Your task to perform on an android device: change your default location settings in chrome Image 0: 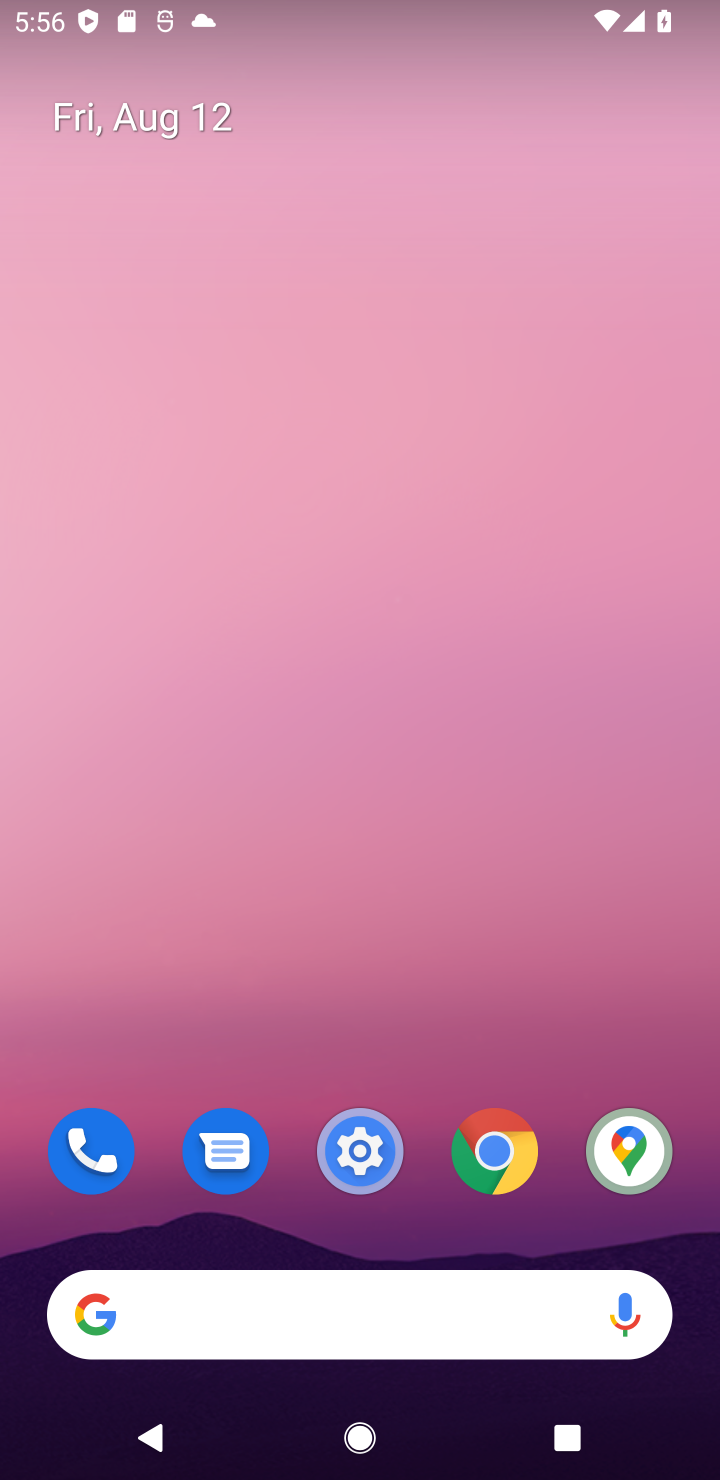
Step 0: click (499, 1147)
Your task to perform on an android device: change your default location settings in chrome Image 1: 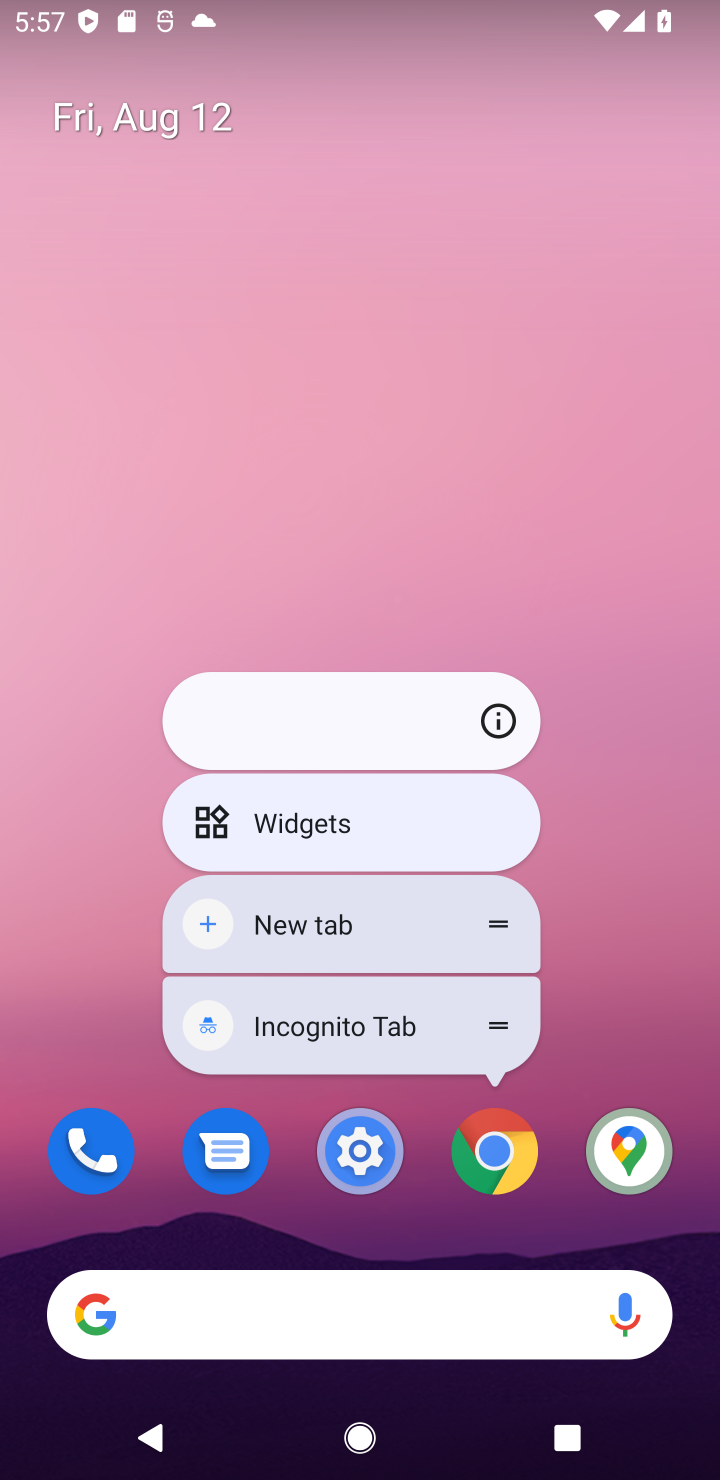
Step 1: click (499, 1147)
Your task to perform on an android device: change your default location settings in chrome Image 2: 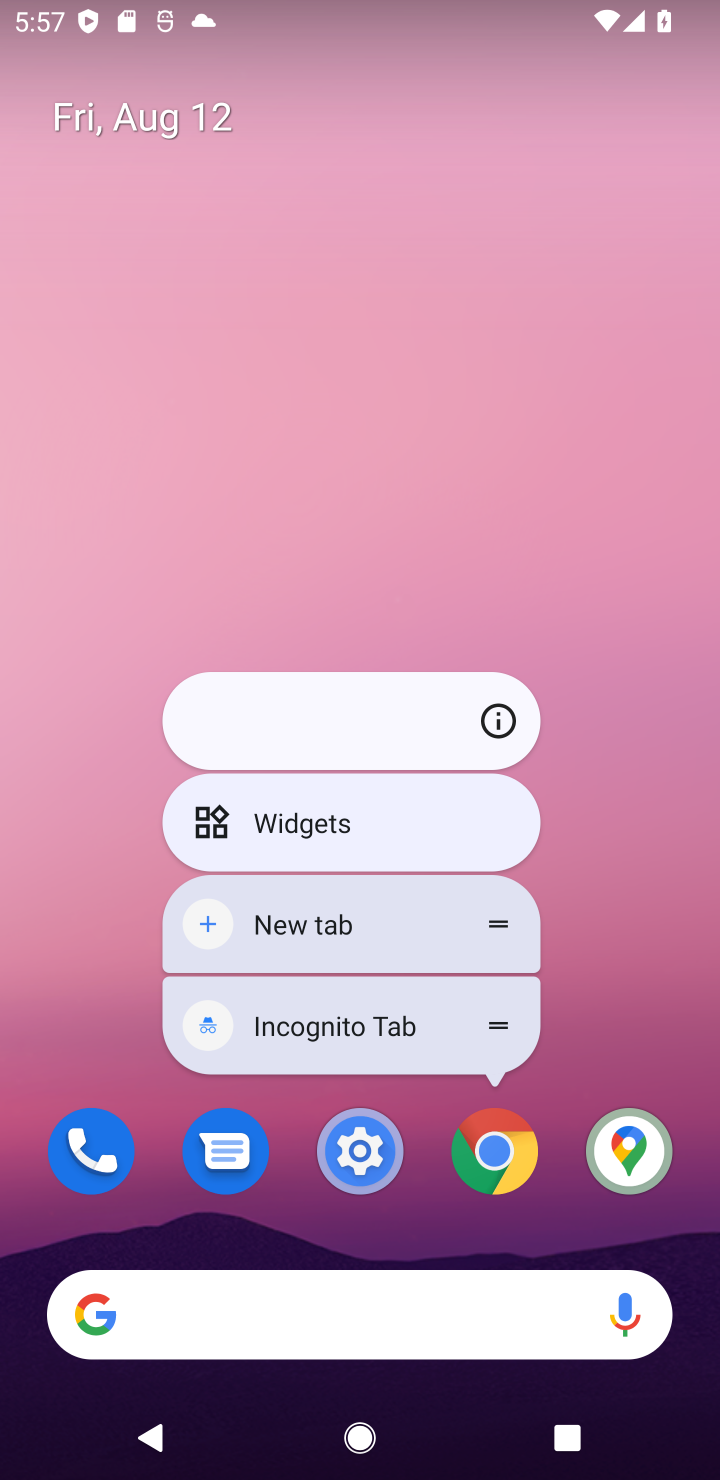
Step 2: click (495, 1169)
Your task to perform on an android device: change your default location settings in chrome Image 3: 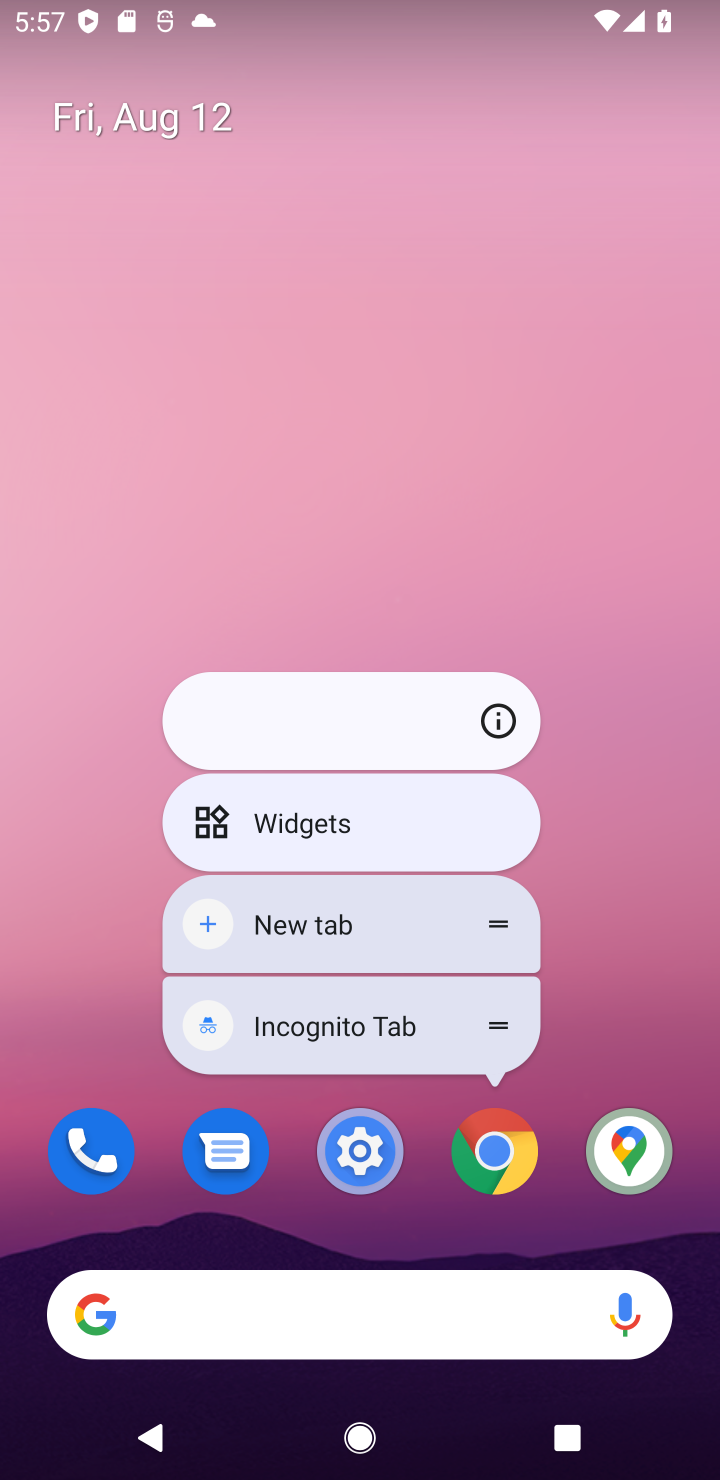
Step 3: click (495, 1169)
Your task to perform on an android device: change your default location settings in chrome Image 4: 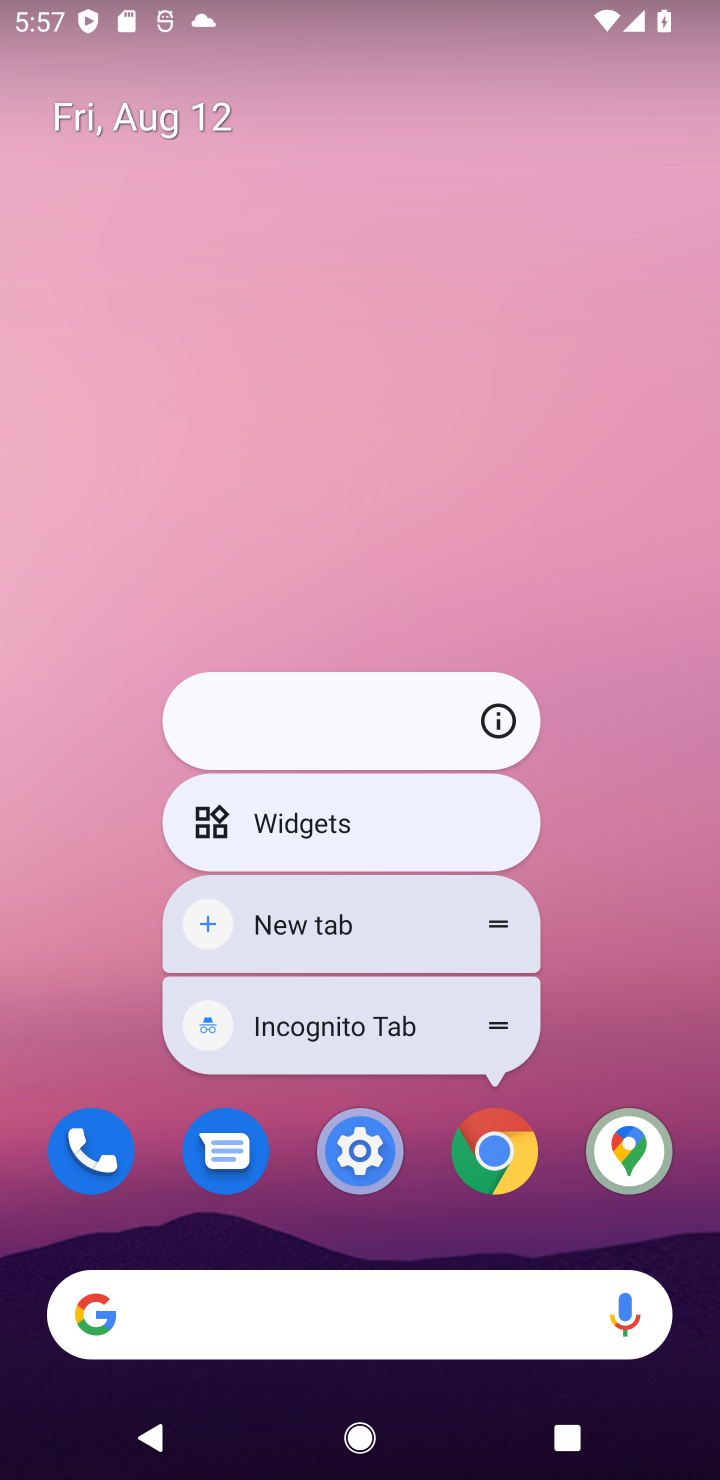
Step 4: click (672, 906)
Your task to perform on an android device: change your default location settings in chrome Image 5: 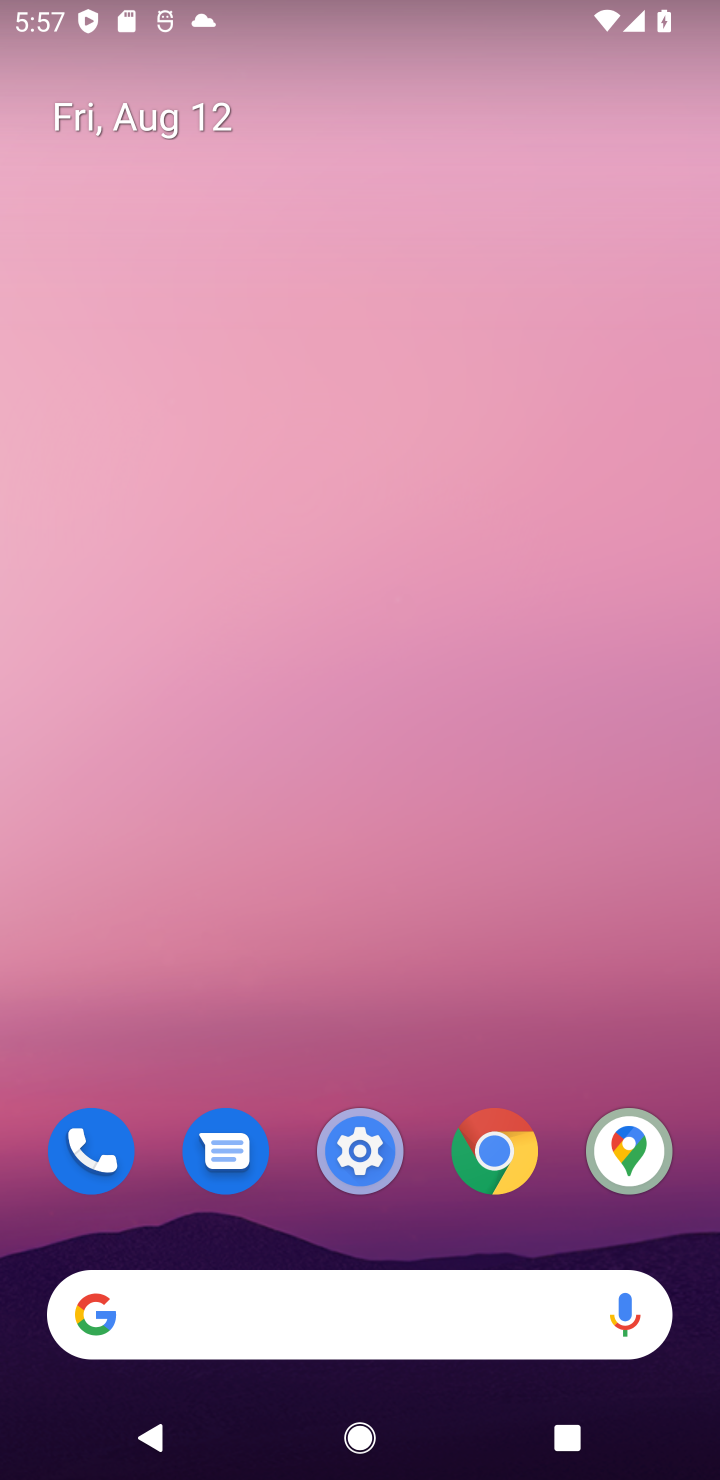
Step 5: drag from (542, 1060) to (582, 59)
Your task to perform on an android device: change your default location settings in chrome Image 6: 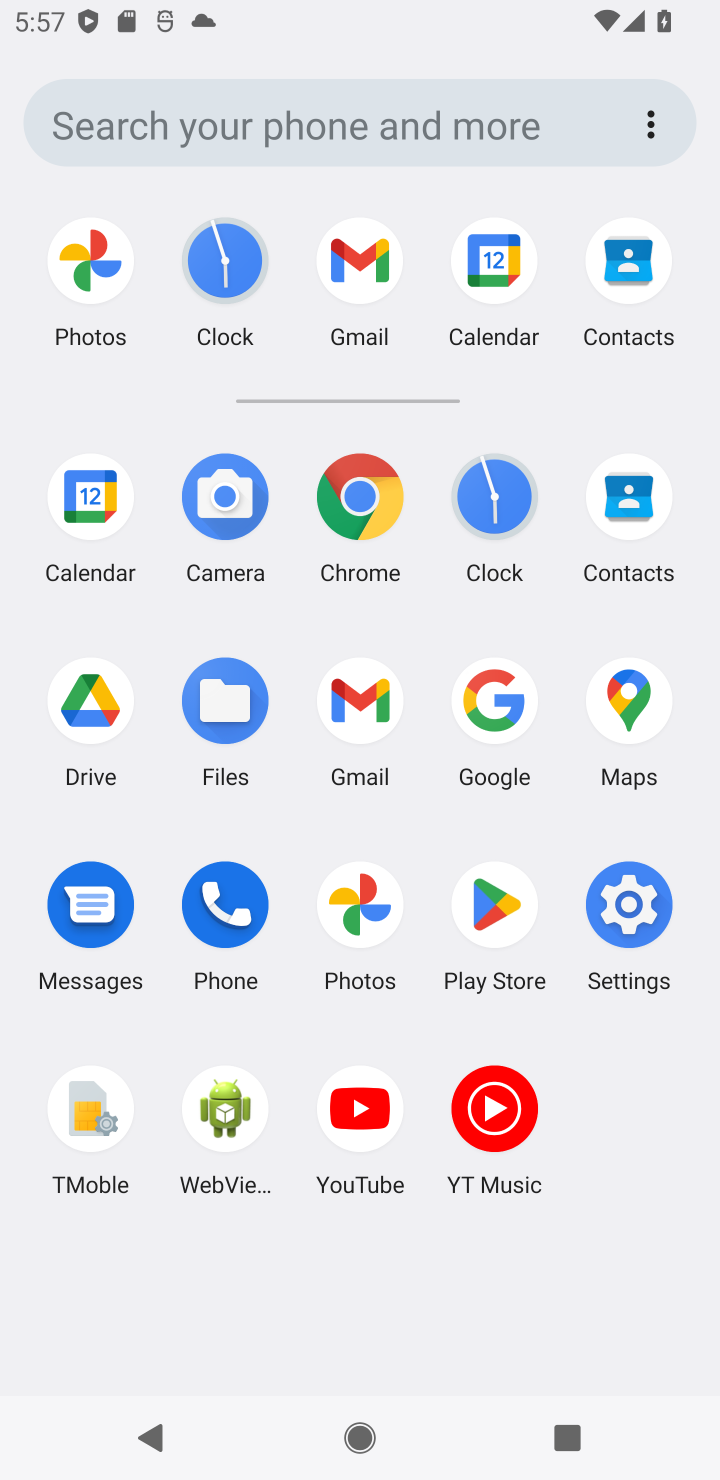
Step 6: click (368, 501)
Your task to perform on an android device: change your default location settings in chrome Image 7: 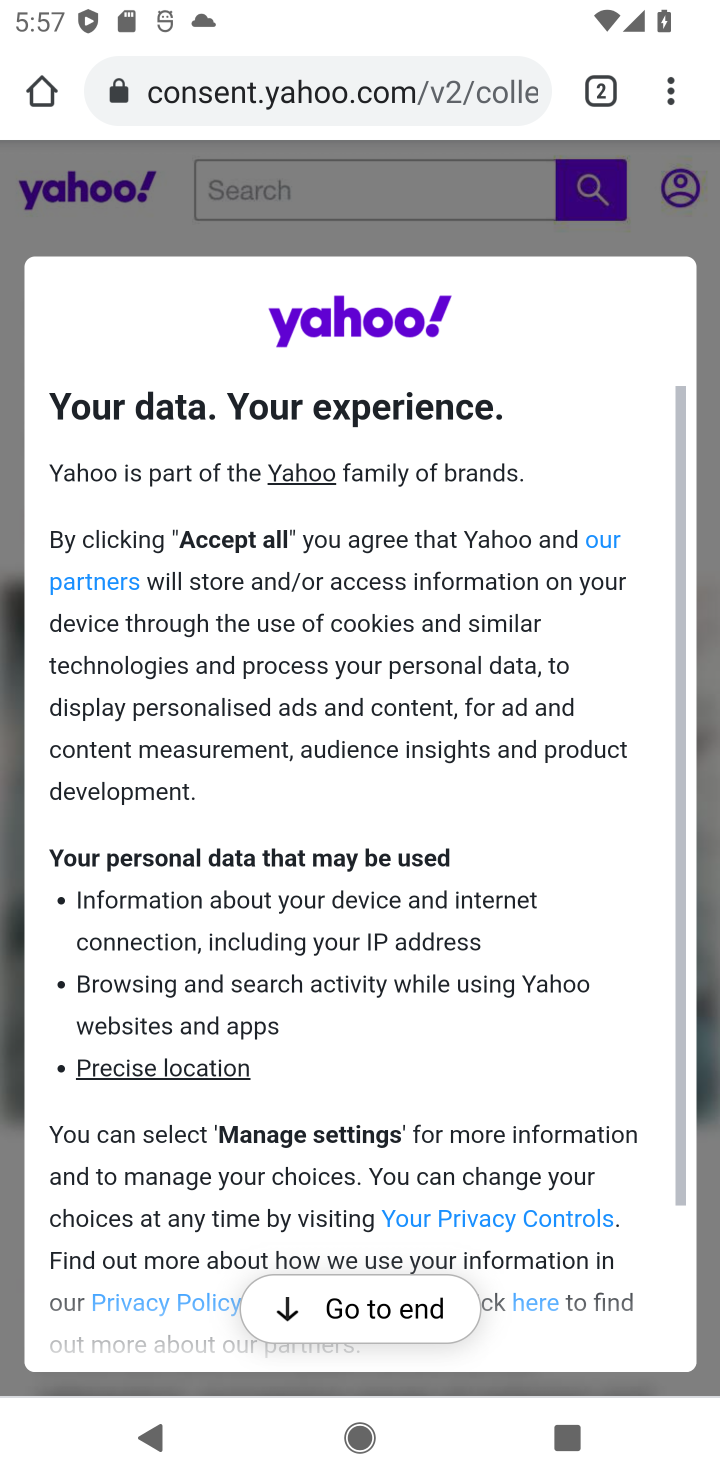
Step 7: click (657, 76)
Your task to perform on an android device: change your default location settings in chrome Image 8: 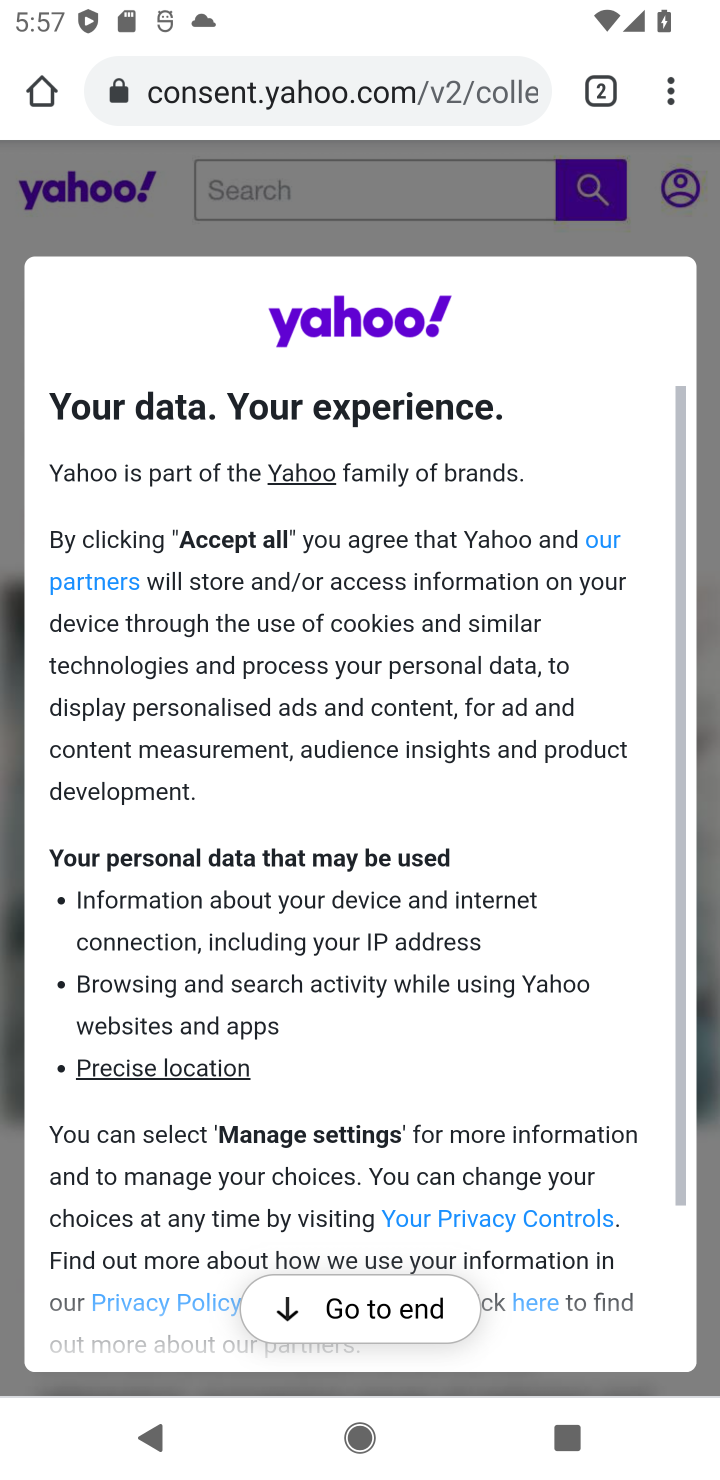
Step 8: drag from (660, 79) to (524, 1261)
Your task to perform on an android device: change your default location settings in chrome Image 9: 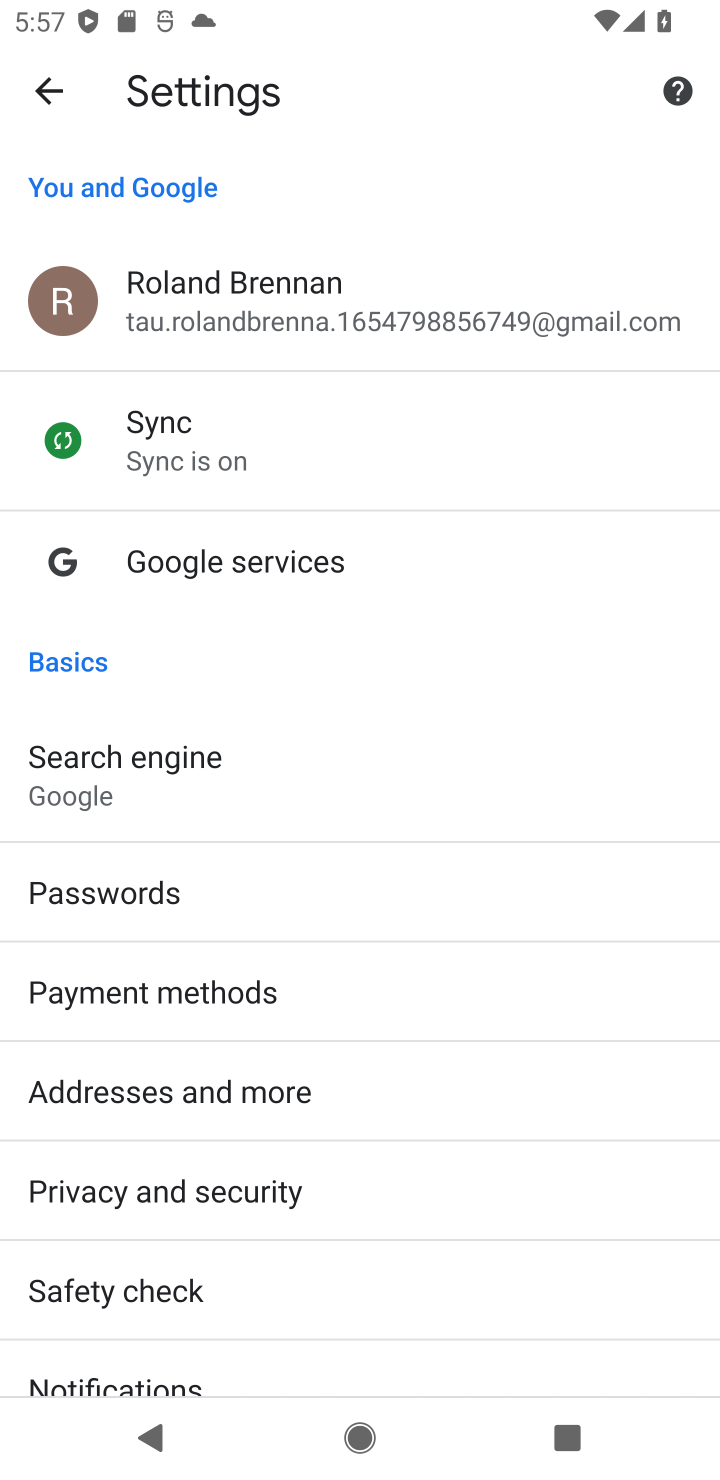
Step 9: drag from (371, 1144) to (27, 187)
Your task to perform on an android device: change your default location settings in chrome Image 10: 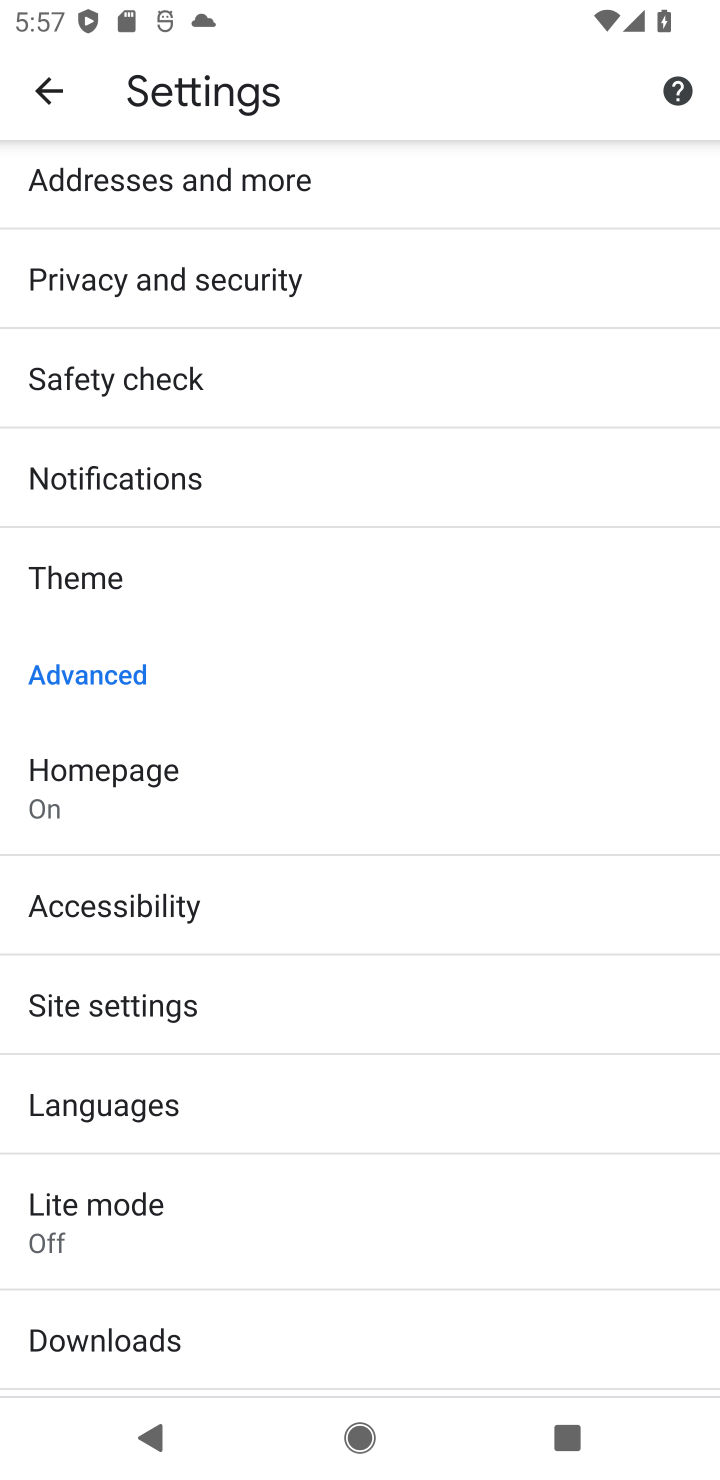
Step 10: click (178, 1016)
Your task to perform on an android device: change your default location settings in chrome Image 11: 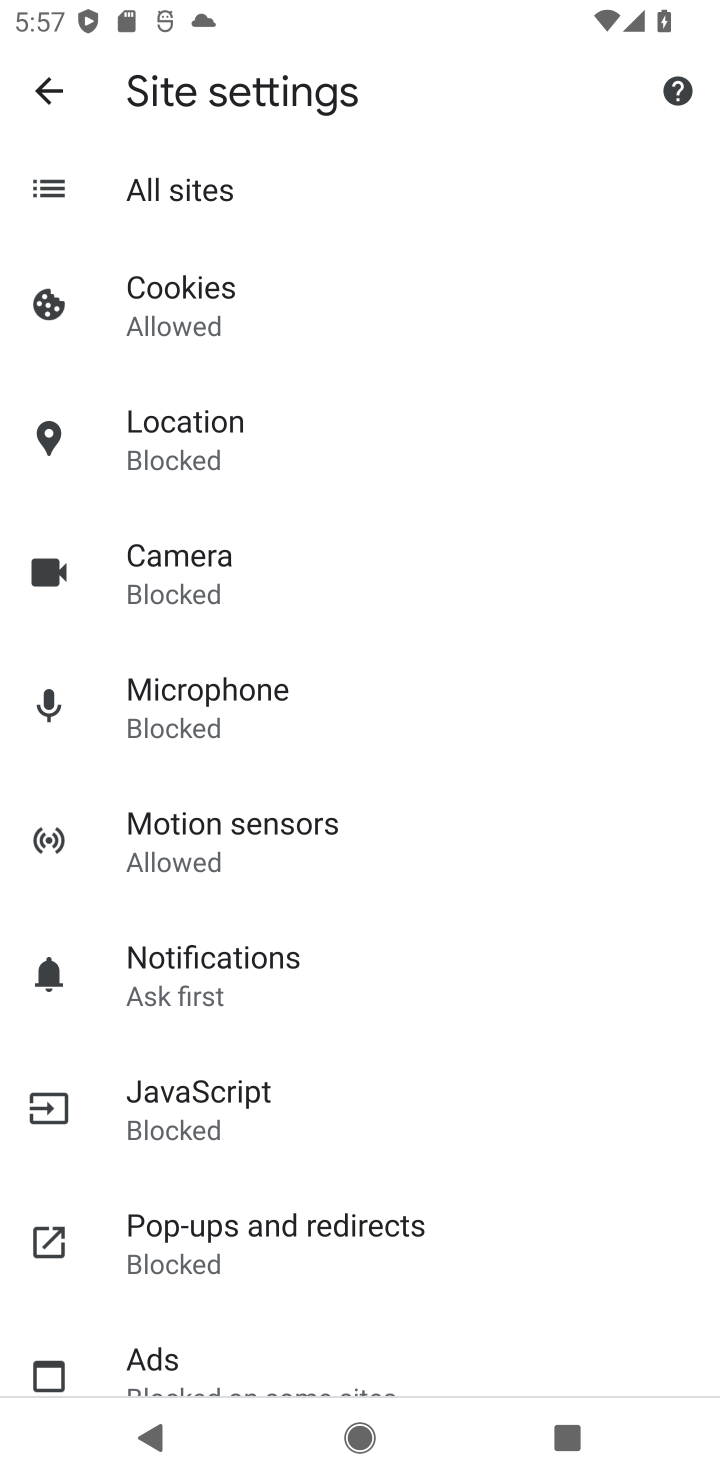
Step 11: click (202, 448)
Your task to perform on an android device: change your default location settings in chrome Image 12: 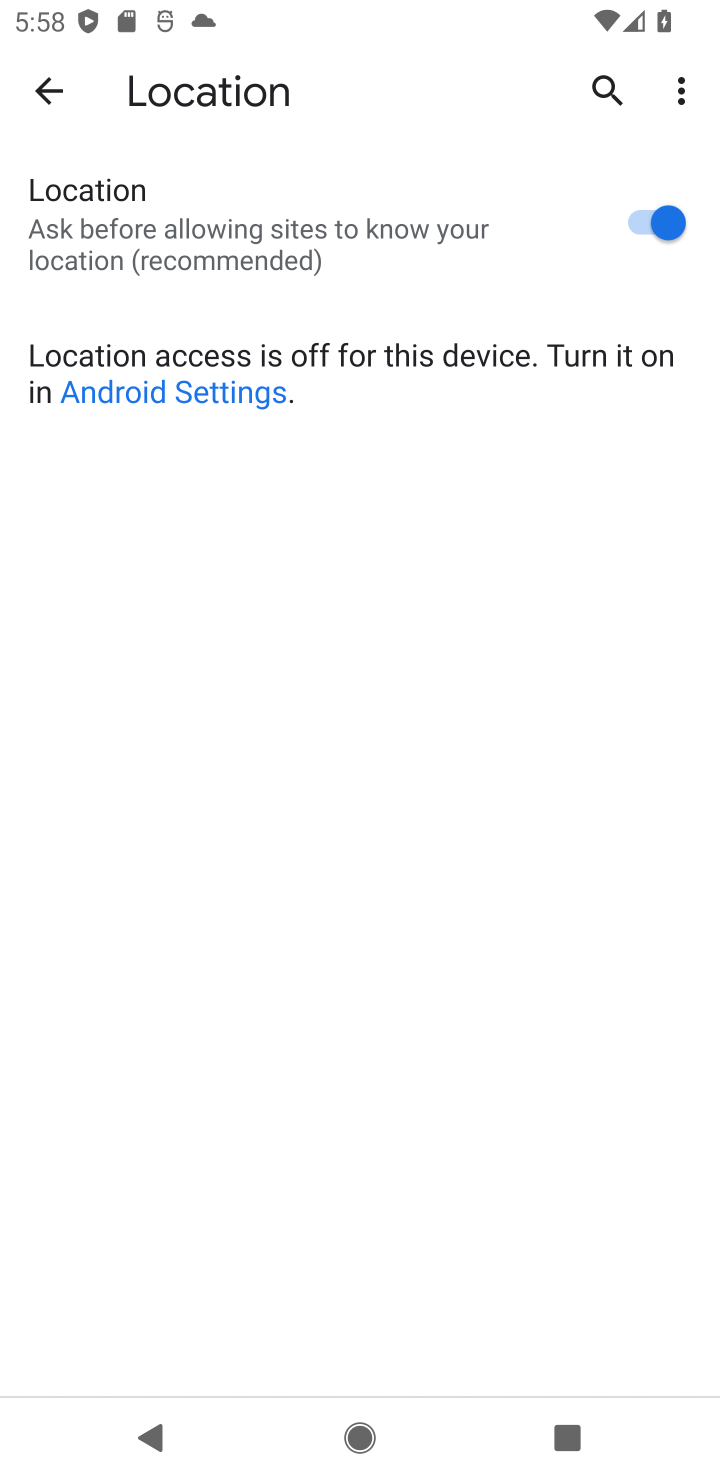
Step 12: click (653, 223)
Your task to perform on an android device: change your default location settings in chrome Image 13: 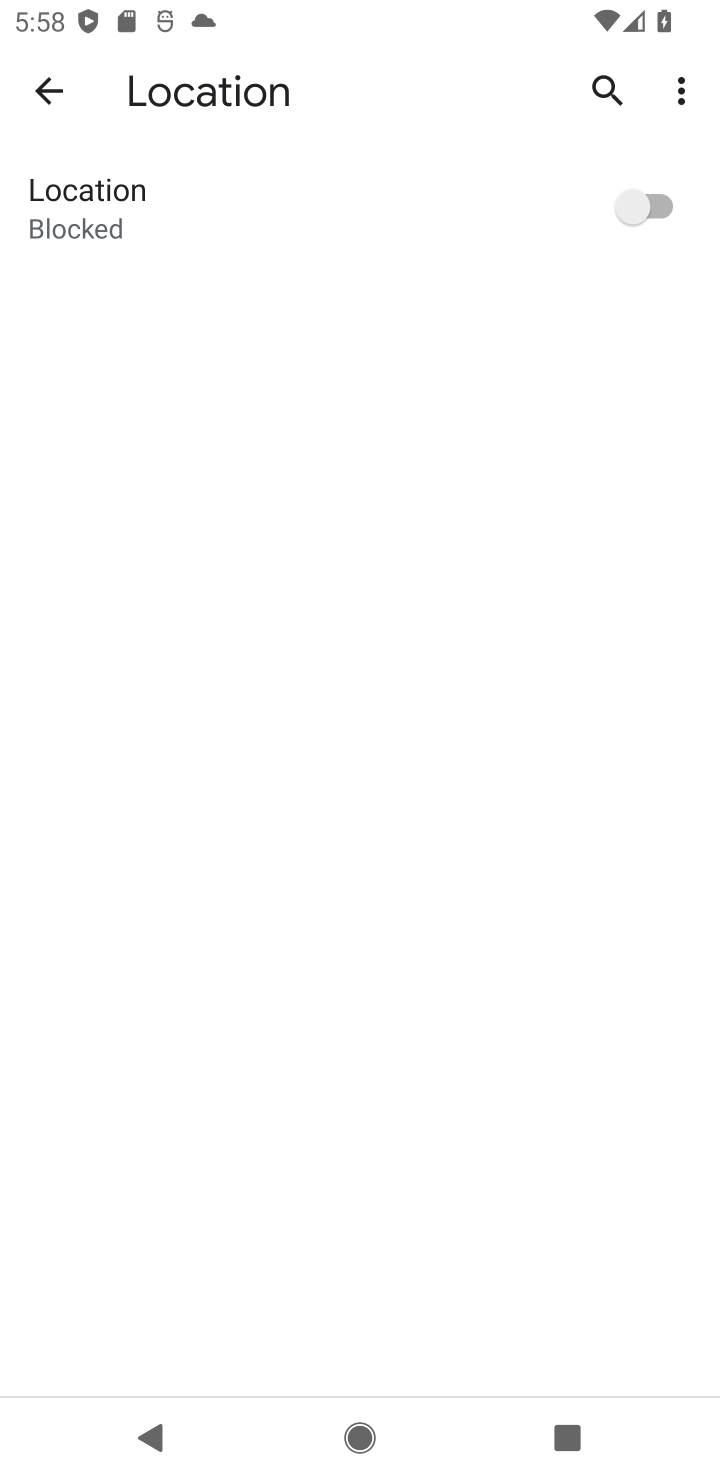
Step 13: task complete